Your task to perform on an android device: Go to privacy settings Image 0: 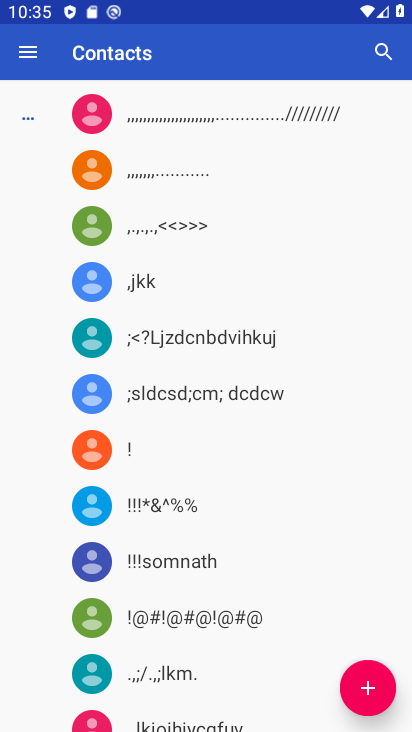
Step 0: press home button
Your task to perform on an android device: Go to privacy settings Image 1: 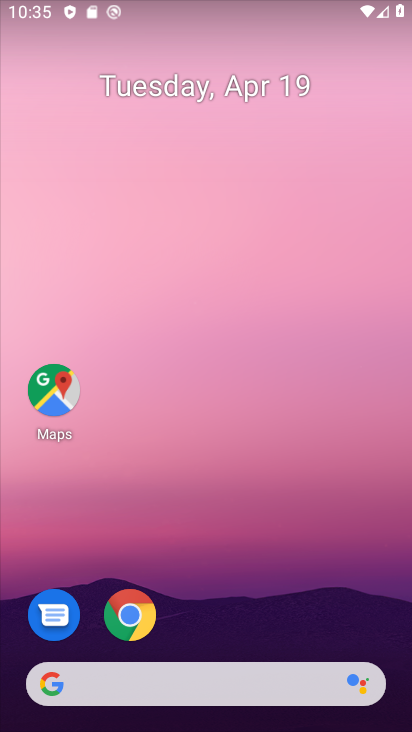
Step 1: drag from (182, 653) to (399, 100)
Your task to perform on an android device: Go to privacy settings Image 2: 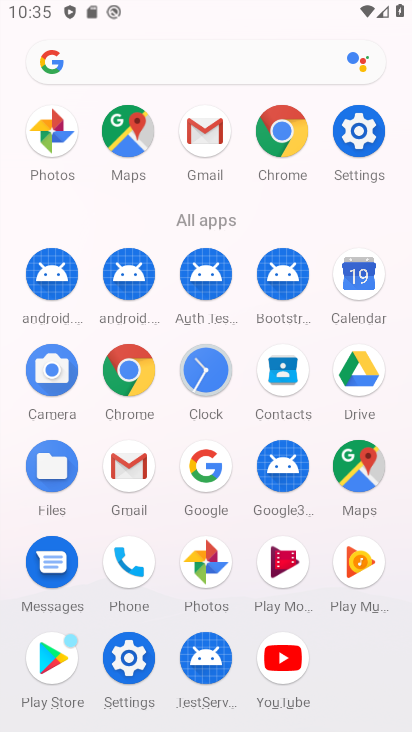
Step 2: click (359, 139)
Your task to perform on an android device: Go to privacy settings Image 3: 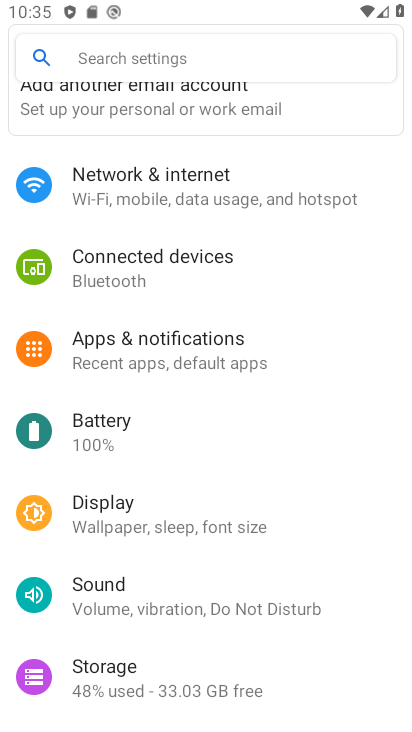
Step 3: drag from (207, 623) to (338, 298)
Your task to perform on an android device: Go to privacy settings Image 4: 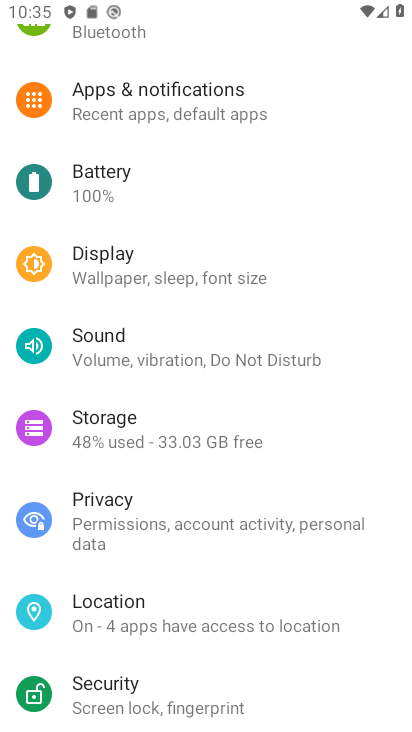
Step 4: click (151, 514)
Your task to perform on an android device: Go to privacy settings Image 5: 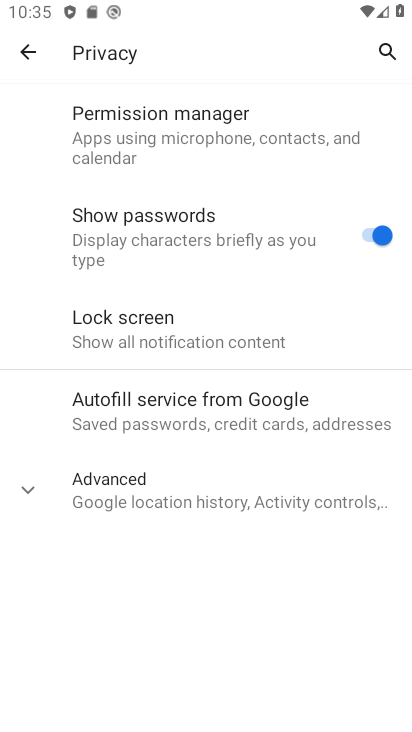
Step 5: task complete